Your task to perform on an android device: turn off translation in the chrome app Image 0: 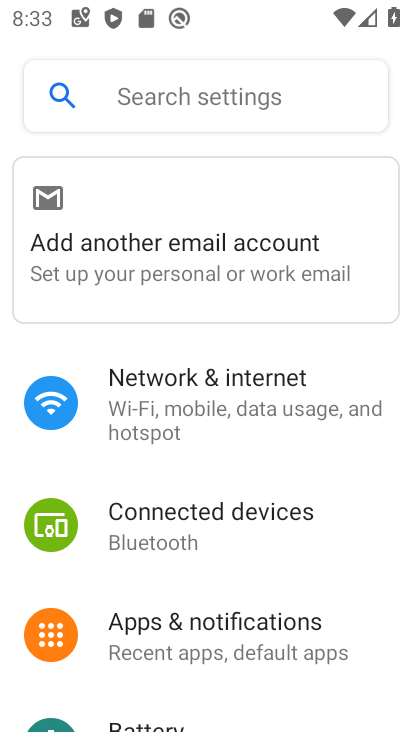
Step 0: press home button
Your task to perform on an android device: turn off translation in the chrome app Image 1: 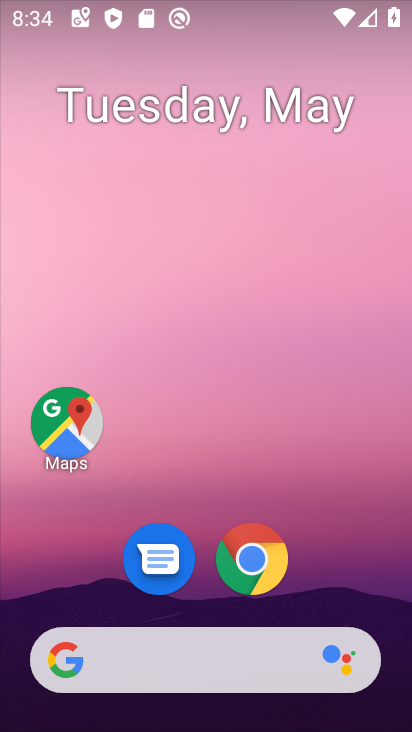
Step 1: click (257, 591)
Your task to perform on an android device: turn off translation in the chrome app Image 2: 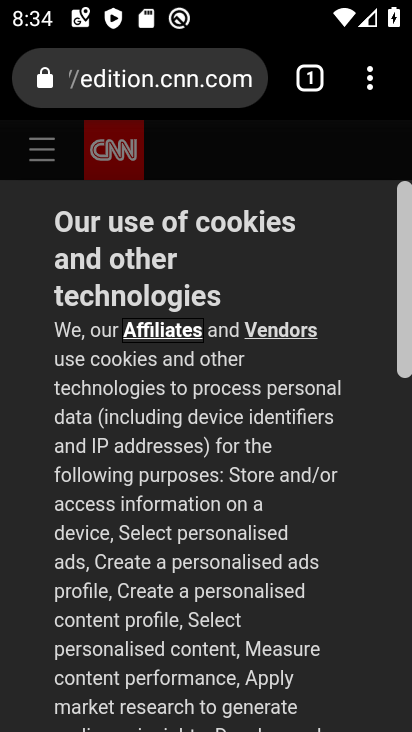
Step 2: drag from (362, 89) to (131, 618)
Your task to perform on an android device: turn off translation in the chrome app Image 3: 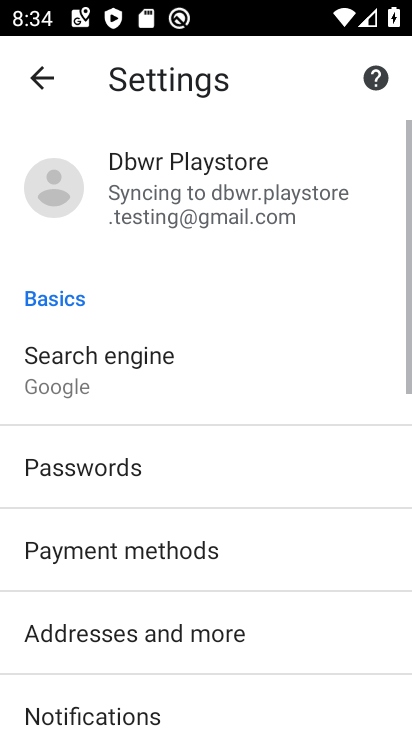
Step 3: drag from (144, 672) to (176, 211)
Your task to perform on an android device: turn off translation in the chrome app Image 4: 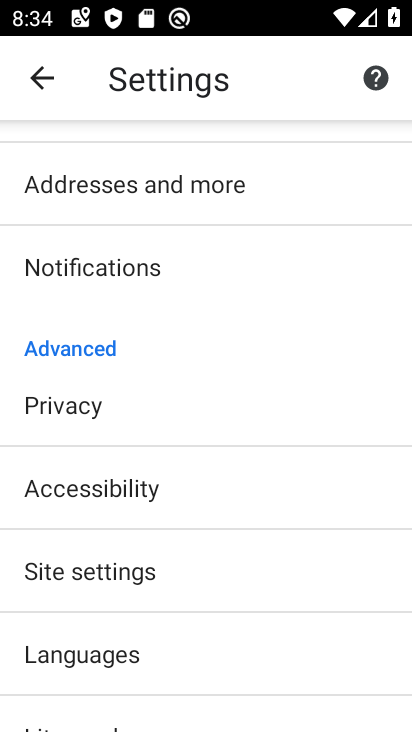
Step 4: click (138, 653)
Your task to perform on an android device: turn off translation in the chrome app Image 5: 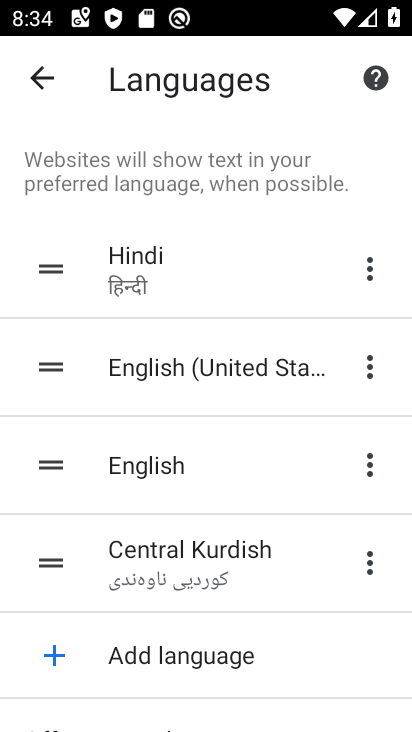
Step 5: task complete